Your task to perform on an android device: Open calendar and show me the third week of next month Image 0: 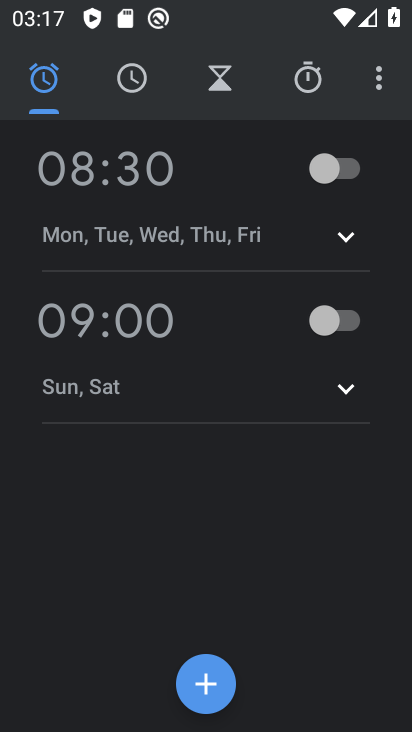
Step 0: press home button
Your task to perform on an android device: Open calendar and show me the third week of next month Image 1: 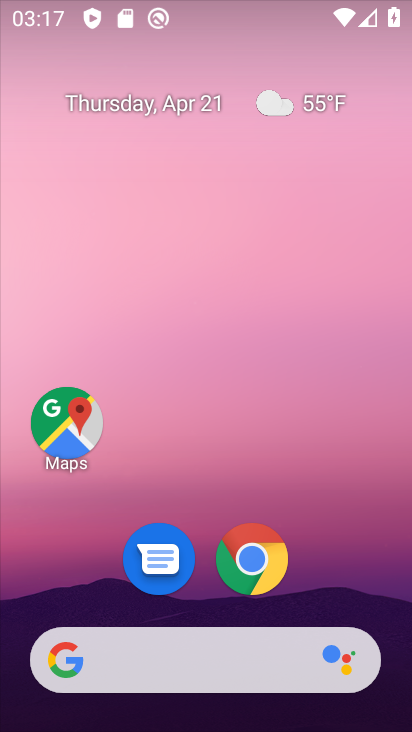
Step 1: drag from (317, 537) to (290, 0)
Your task to perform on an android device: Open calendar and show me the third week of next month Image 2: 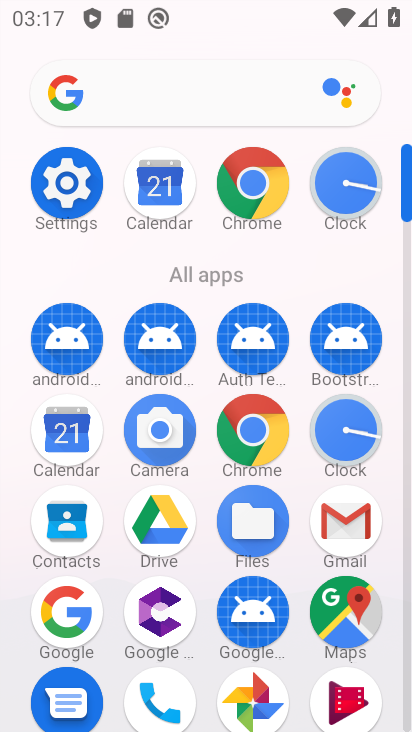
Step 2: click (168, 180)
Your task to perform on an android device: Open calendar and show me the third week of next month Image 3: 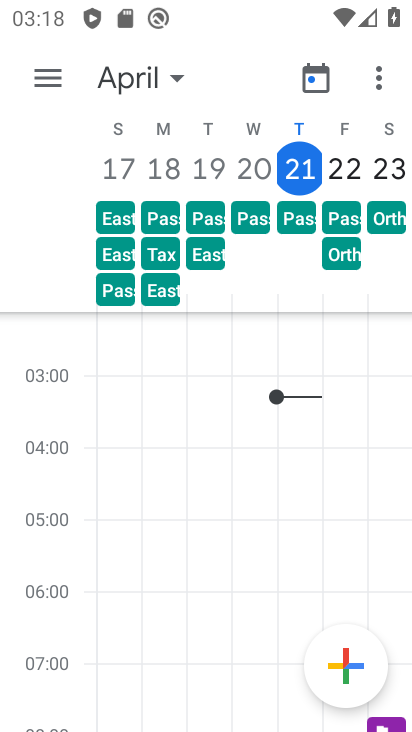
Step 3: click (145, 74)
Your task to perform on an android device: Open calendar and show me the third week of next month Image 4: 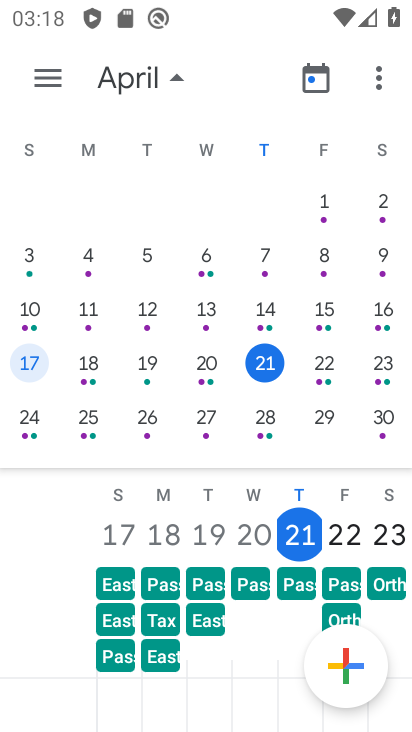
Step 4: drag from (392, 357) to (0, 301)
Your task to perform on an android device: Open calendar and show me the third week of next month Image 5: 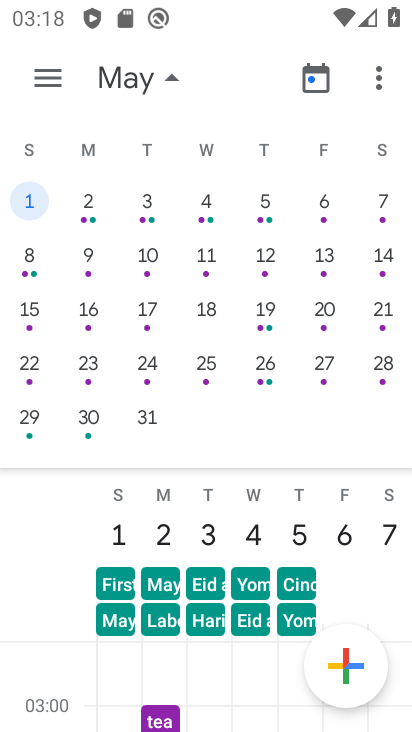
Step 5: click (211, 313)
Your task to perform on an android device: Open calendar and show me the third week of next month Image 6: 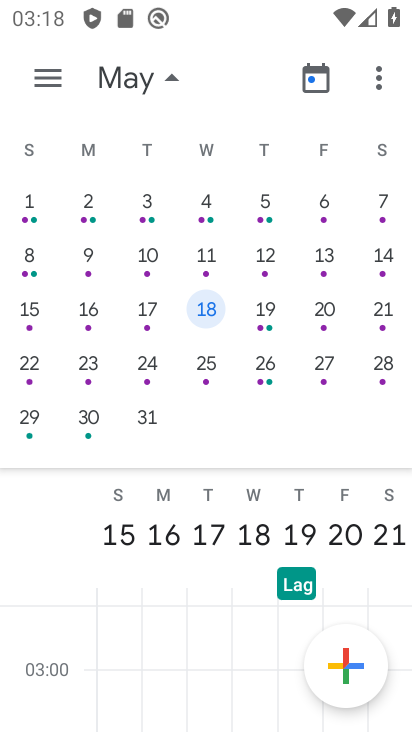
Step 6: task complete